Your task to perform on an android device: turn on javascript in the chrome app Image 0: 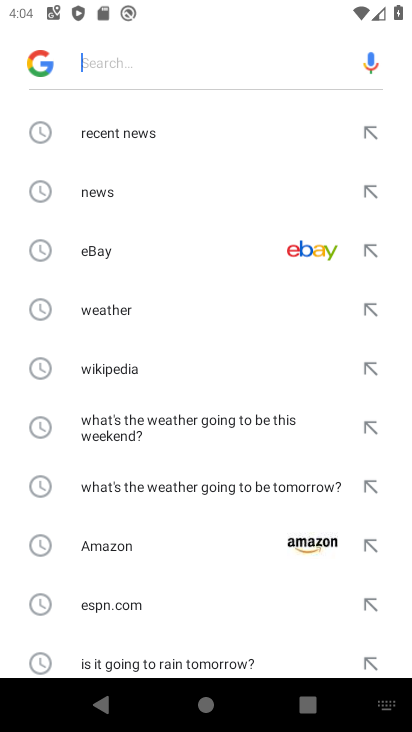
Step 0: press home button
Your task to perform on an android device: turn on javascript in the chrome app Image 1: 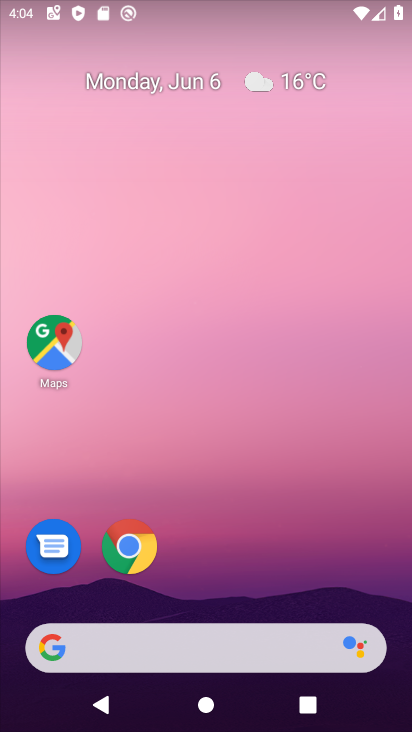
Step 1: drag from (283, 586) to (321, 59)
Your task to perform on an android device: turn on javascript in the chrome app Image 2: 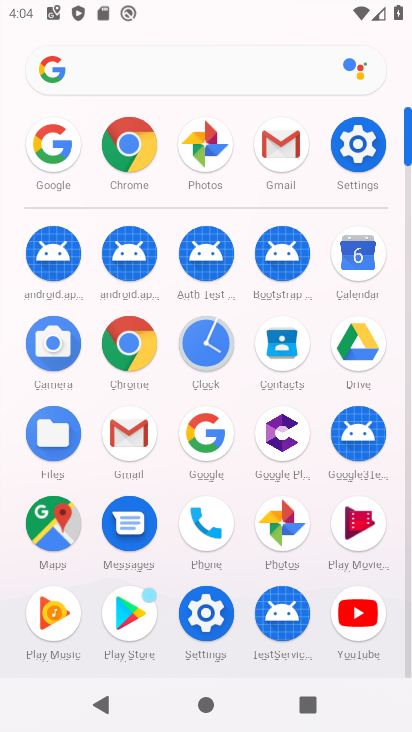
Step 2: click (145, 124)
Your task to perform on an android device: turn on javascript in the chrome app Image 3: 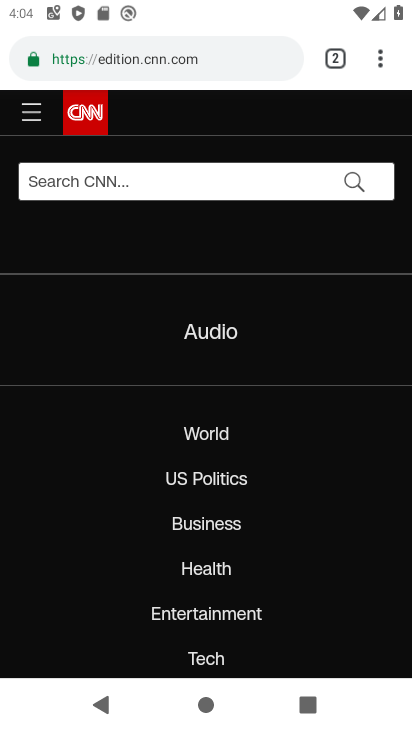
Step 3: drag from (379, 58) to (160, 581)
Your task to perform on an android device: turn on javascript in the chrome app Image 4: 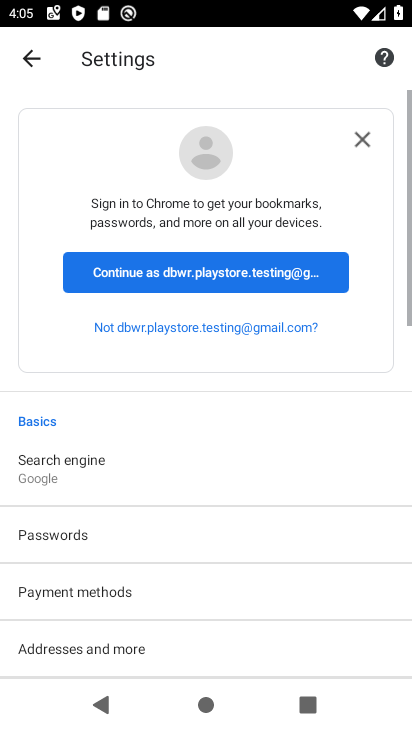
Step 4: drag from (159, 579) to (211, 125)
Your task to perform on an android device: turn on javascript in the chrome app Image 5: 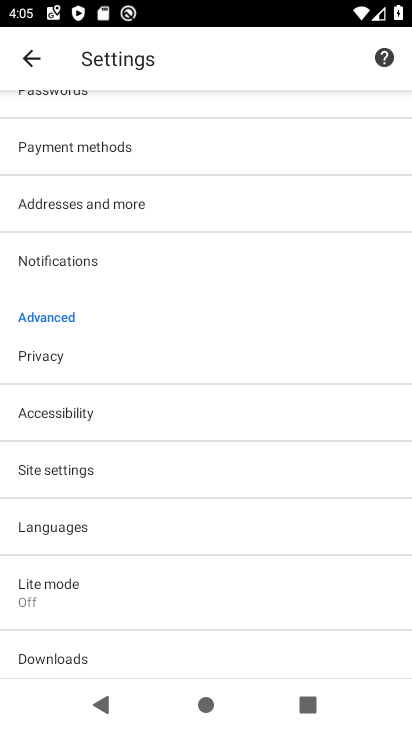
Step 5: drag from (144, 598) to (249, 100)
Your task to perform on an android device: turn on javascript in the chrome app Image 6: 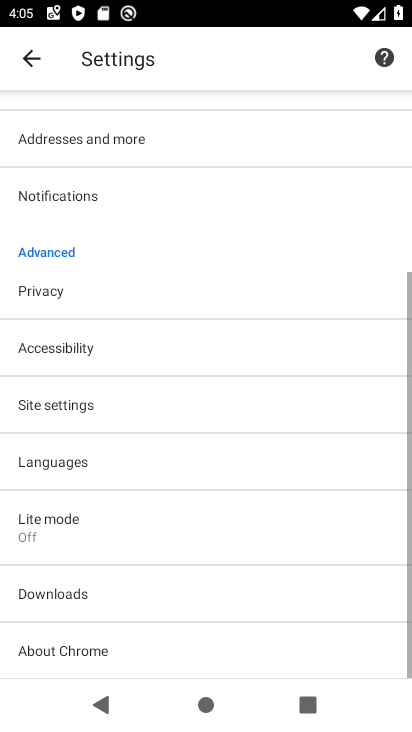
Step 6: click (50, 408)
Your task to perform on an android device: turn on javascript in the chrome app Image 7: 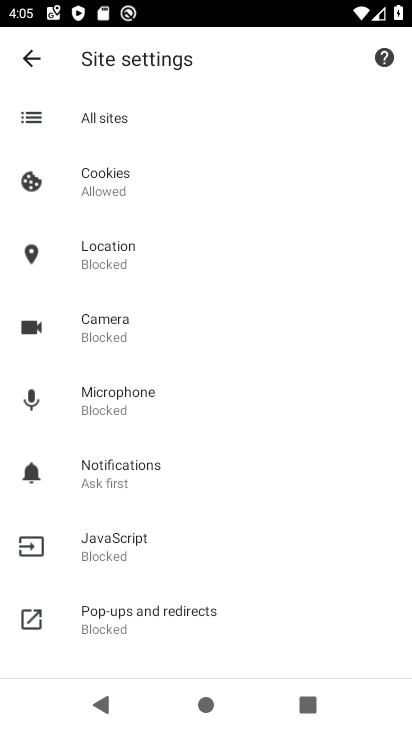
Step 7: click (104, 541)
Your task to perform on an android device: turn on javascript in the chrome app Image 8: 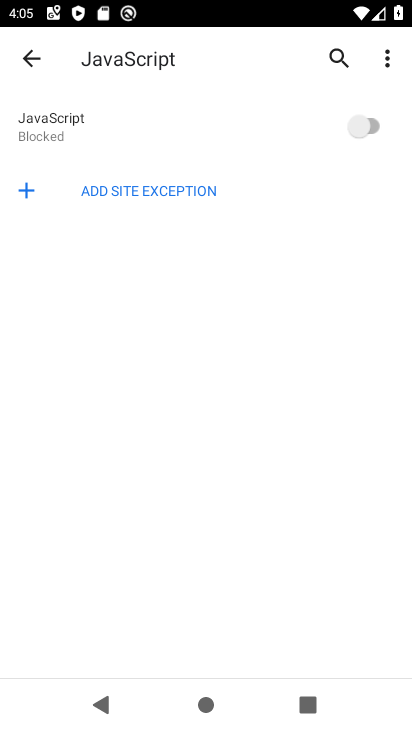
Step 8: click (367, 125)
Your task to perform on an android device: turn on javascript in the chrome app Image 9: 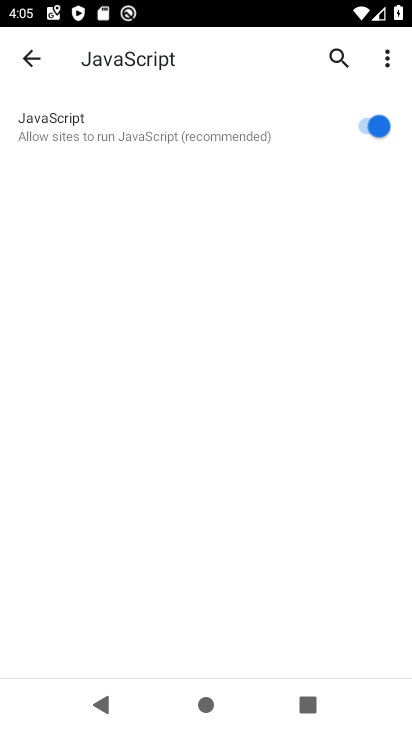
Step 9: task complete